Your task to perform on an android device: turn on airplane mode Image 0: 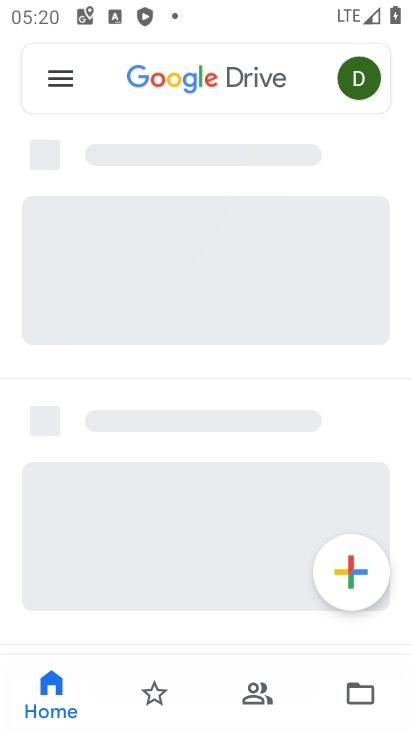
Step 0: click (320, 577)
Your task to perform on an android device: turn on airplane mode Image 1: 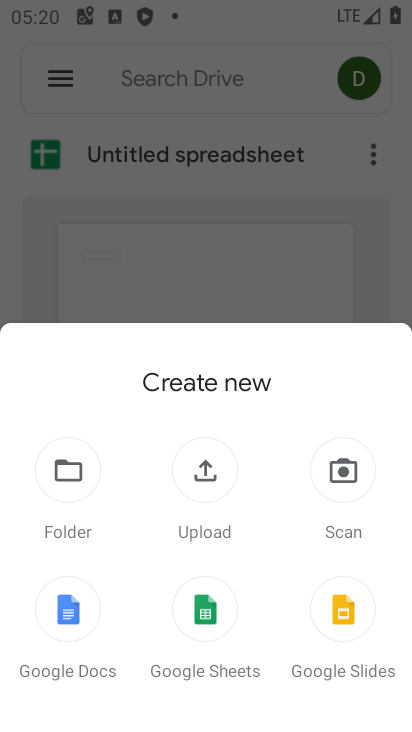
Step 1: click (346, 70)
Your task to perform on an android device: turn on airplane mode Image 2: 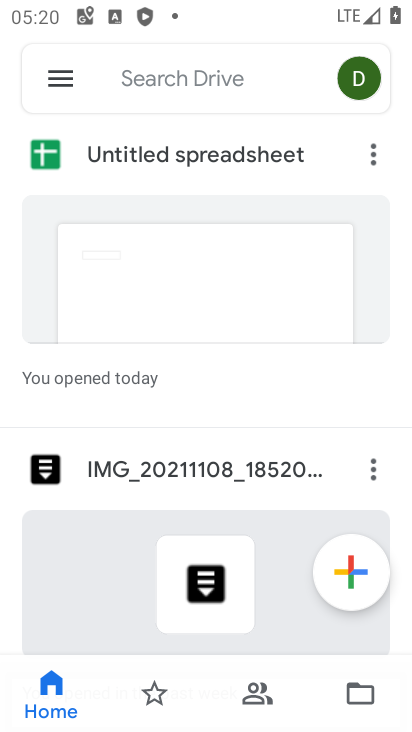
Step 2: press home button
Your task to perform on an android device: turn on airplane mode Image 3: 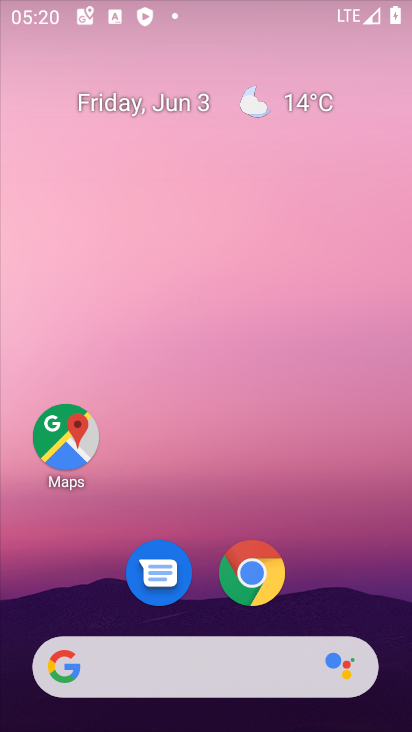
Step 3: drag from (355, 43) to (300, 366)
Your task to perform on an android device: turn on airplane mode Image 4: 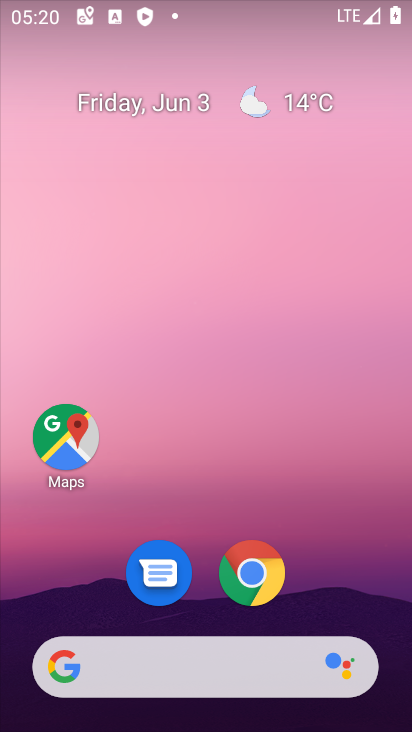
Step 4: drag from (398, 4) to (231, 512)
Your task to perform on an android device: turn on airplane mode Image 5: 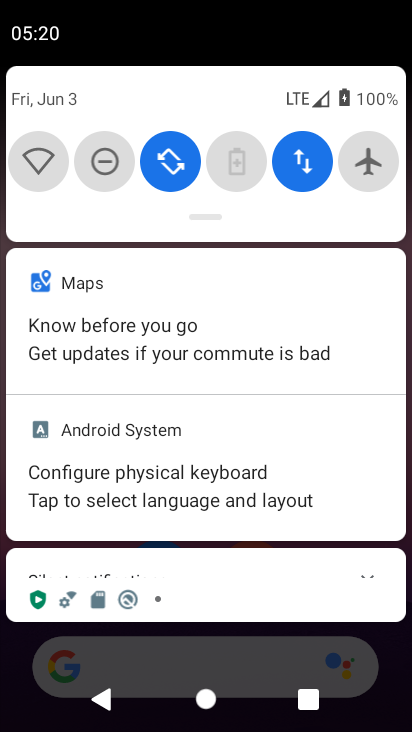
Step 5: click (45, 161)
Your task to perform on an android device: turn on airplane mode Image 6: 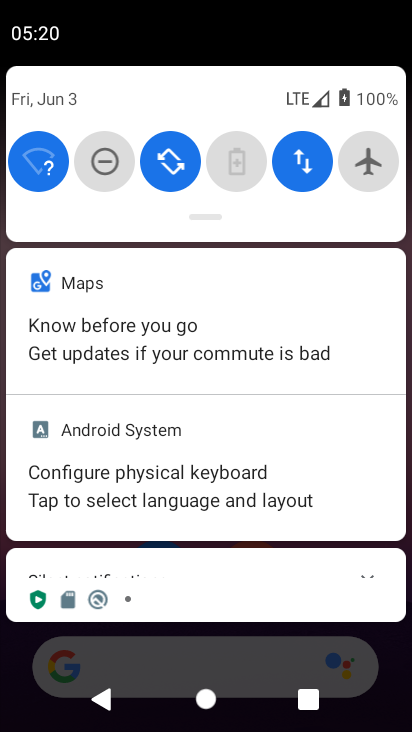
Step 6: click (43, 157)
Your task to perform on an android device: turn on airplane mode Image 7: 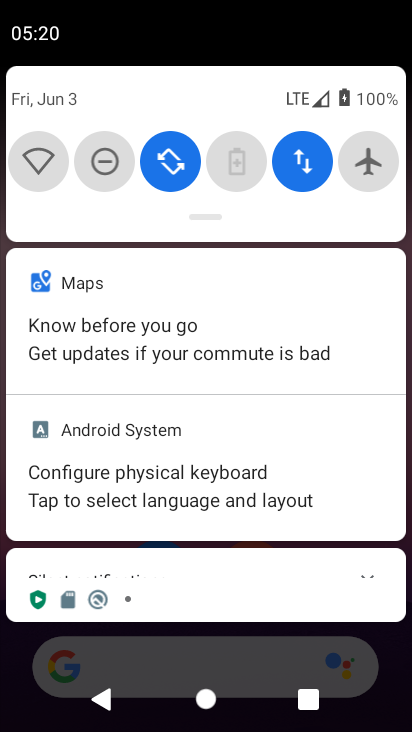
Step 7: click (383, 167)
Your task to perform on an android device: turn on airplane mode Image 8: 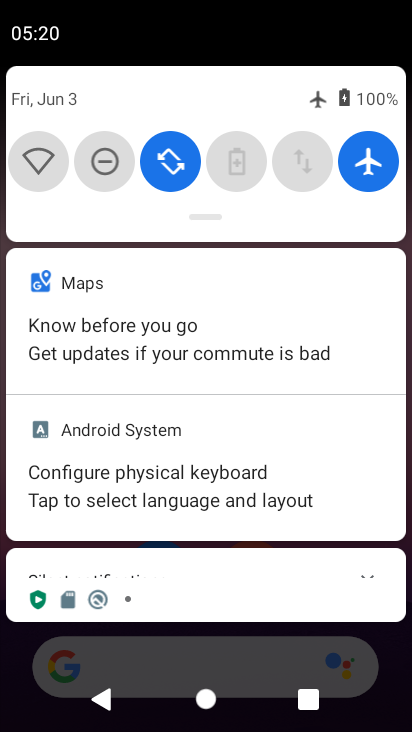
Step 8: task complete